Your task to perform on an android device: empty trash in google photos Image 0: 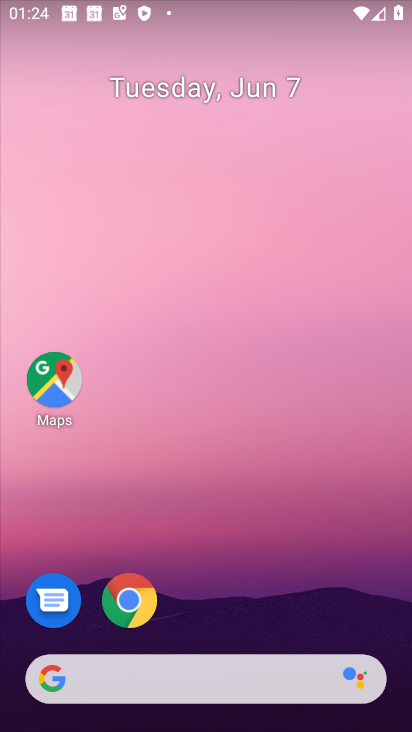
Step 0: drag from (236, 719) to (205, 248)
Your task to perform on an android device: empty trash in google photos Image 1: 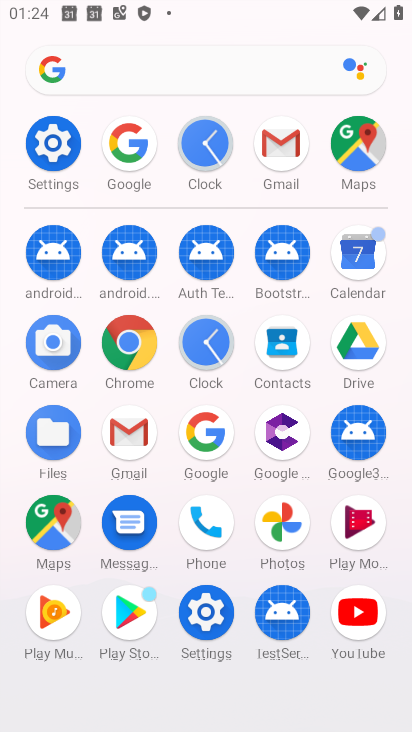
Step 1: click (287, 525)
Your task to perform on an android device: empty trash in google photos Image 2: 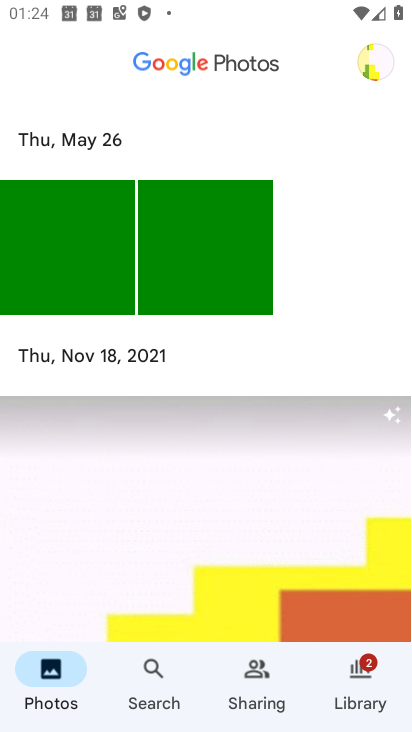
Step 2: click (359, 682)
Your task to perform on an android device: empty trash in google photos Image 3: 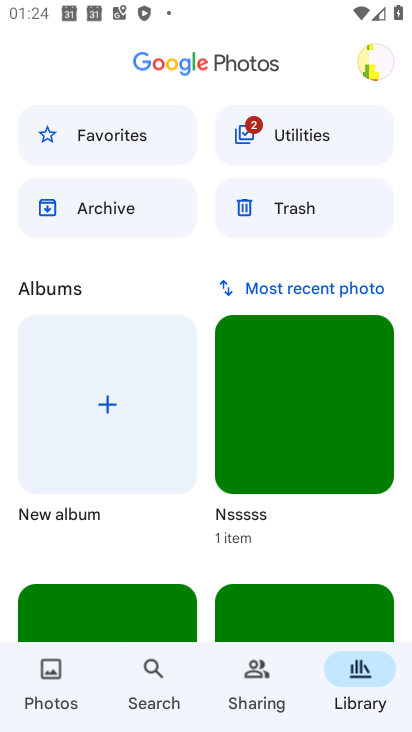
Step 3: click (272, 200)
Your task to perform on an android device: empty trash in google photos Image 4: 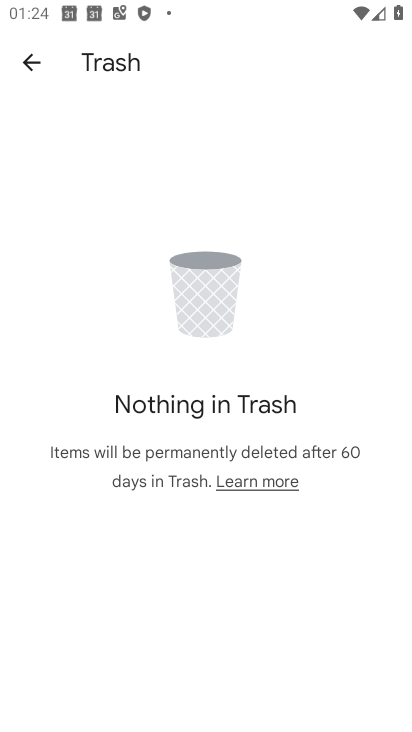
Step 4: task complete